Your task to perform on an android device: Open network settings Image 0: 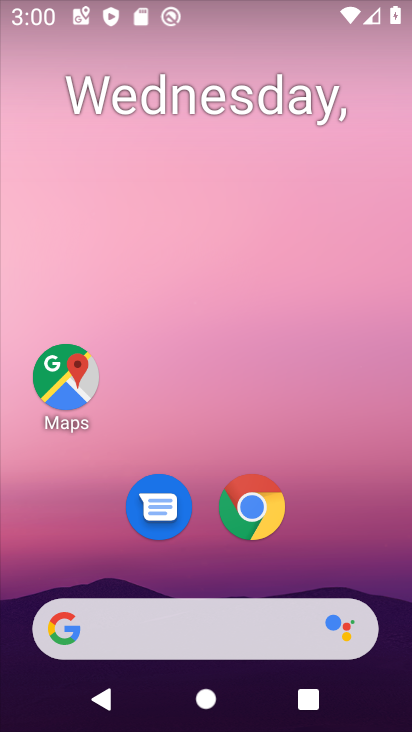
Step 0: drag from (365, 543) to (319, 141)
Your task to perform on an android device: Open network settings Image 1: 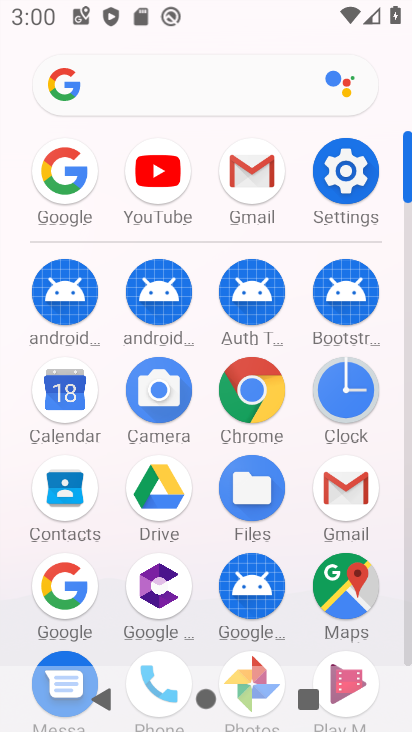
Step 1: click (373, 184)
Your task to perform on an android device: Open network settings Image 2: 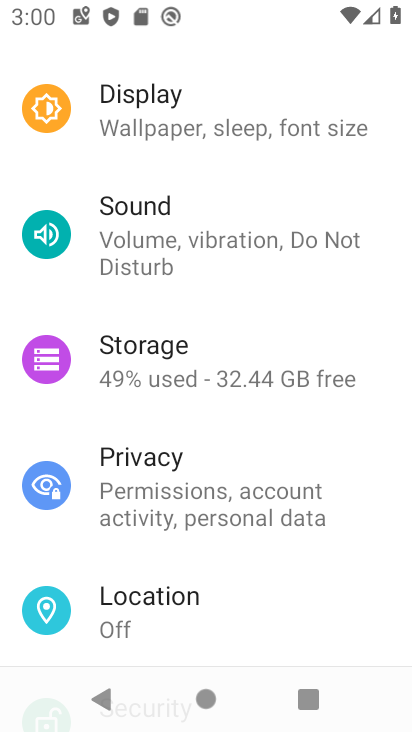
Step 2: drag from (242, 182) to (293, 551)
Your task to perform on an android device: Open network settings Image 3: 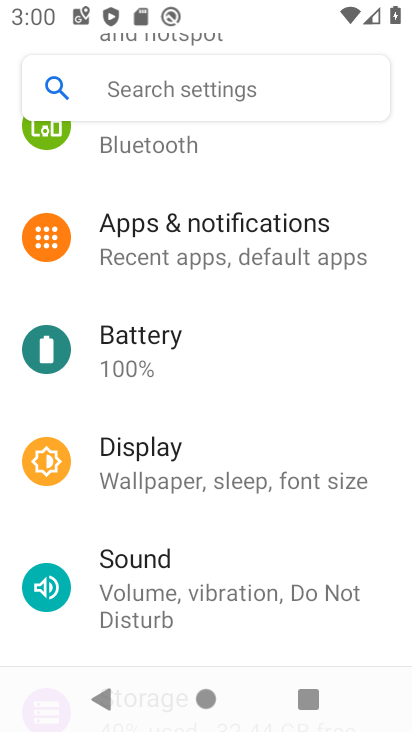
Step 3: drag from (183, 226) to (253, 504)
Your task to perform on an android device: Open network settings Image 4: 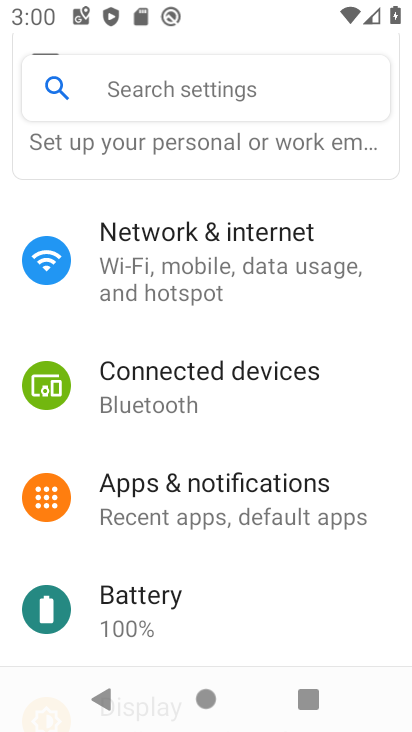
Step 4: click (131, 269)
Your task to perform on an android device: Open network settings Image 5: 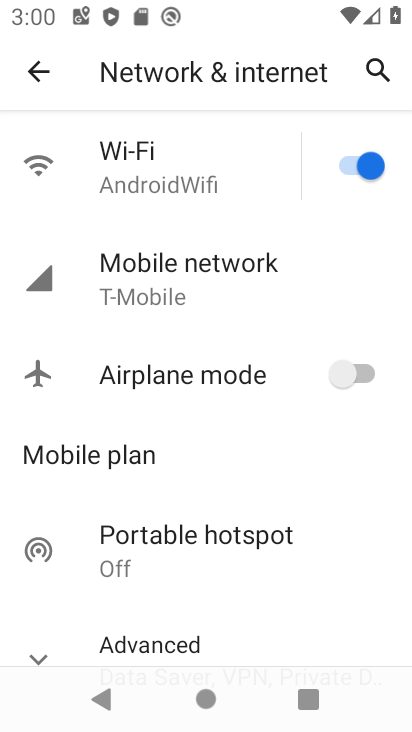
Step 5: task complete